Your task to perform on an android device: turn off javascript in the chrome app Image 0: 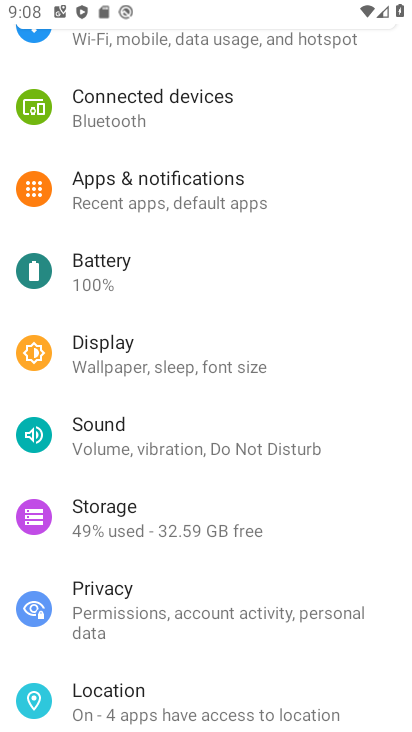
Step 0: press home button
Your task to perform on an android device: turn off javascript in the chrome app Image 1: 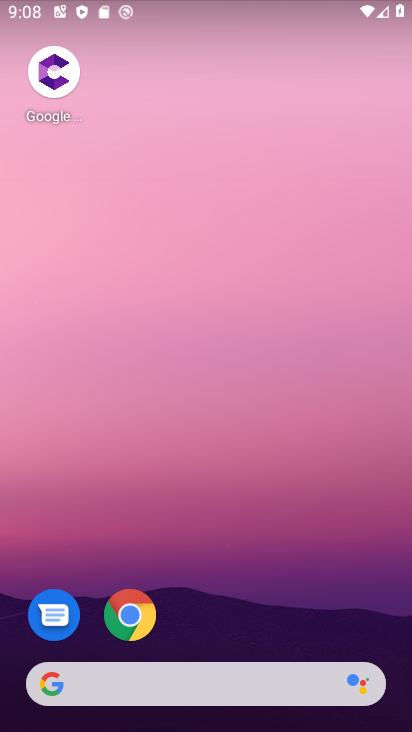
Step 1: click (141, 604)
Your task to perform on an android device: turn off javascript in the chrome app Image 2: 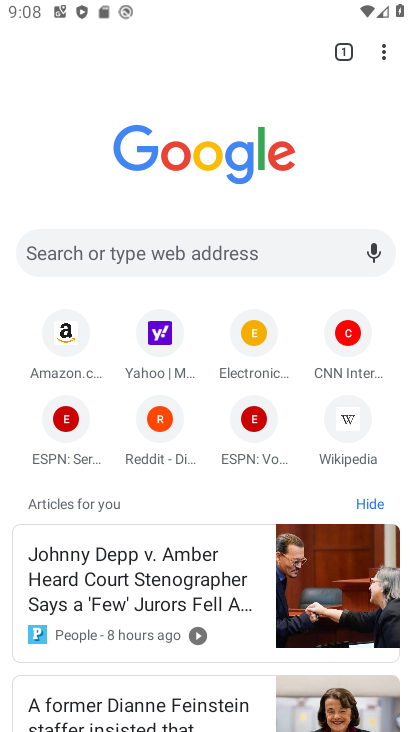
Step 2: click (384, 61)
Your task to perform on an android device: turn off javascript in the chrome app Image 3: 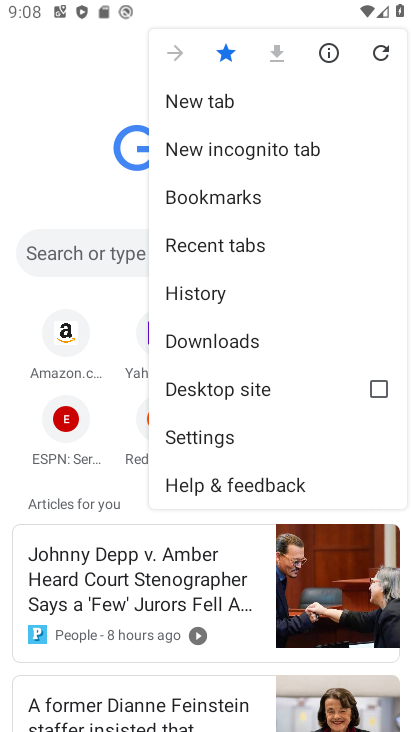
Step 3: click (191, 434)
Your task to perform on an android device: turn off javascript in the chrome app Image 4: 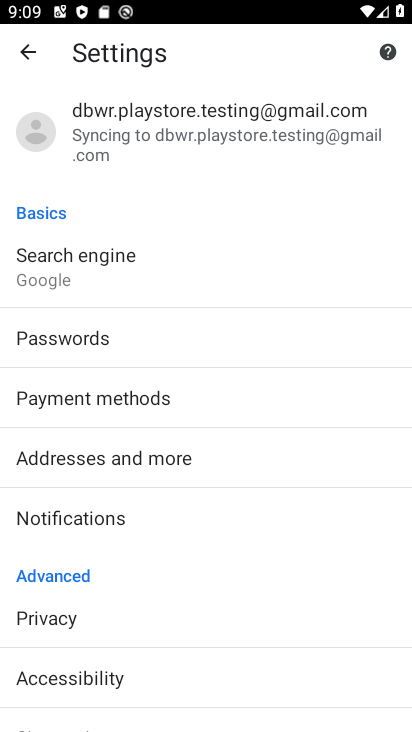
Step 4: drag from (163, 657) to (152, 26)
Your task to perform on an android device: turn off javascript in the chrome app Image 5: 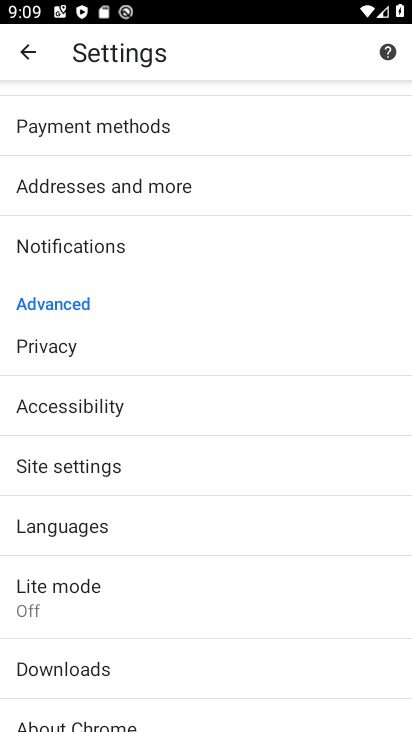
Step 5: click (73, 478)
Your task to perform on an android device: turn off javascript in the chrome app Image 6: 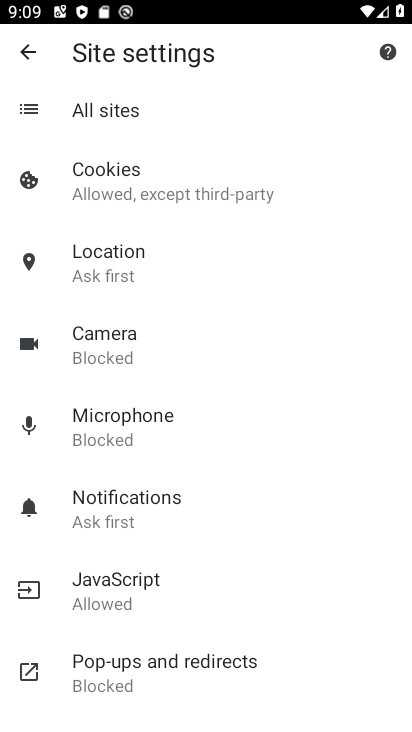
Step 6: click (110, 574)
Your task to perform on an android device: turn off javascript in the chrome app Image 7: 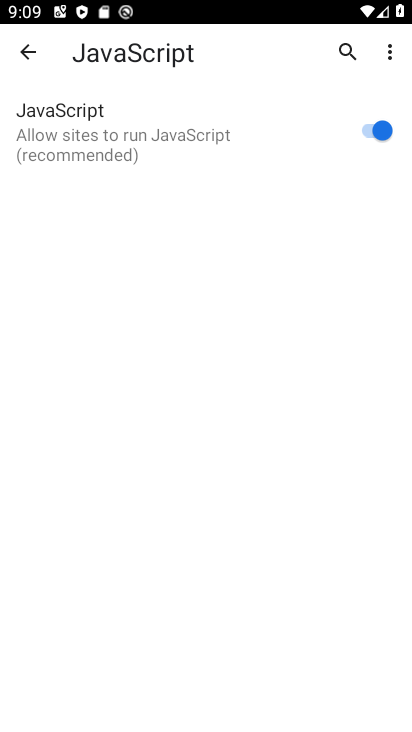
Step 7: click (366, 128)
Your task to perform on an android device: turn off javascript in the chrome app Image 8: 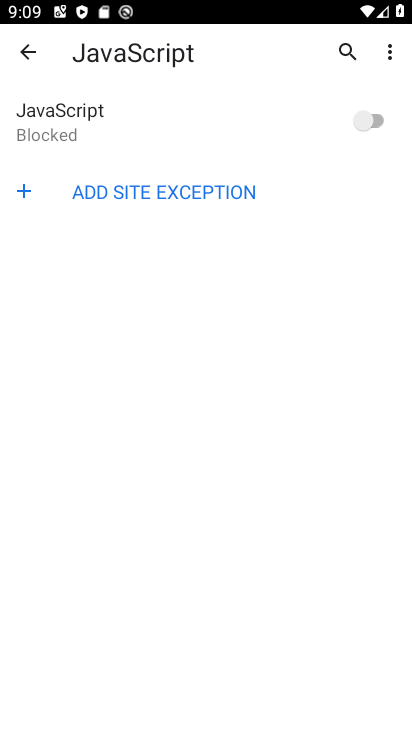
Step 8: task complete